Your task to perform on an android device: choose inbox layout in the gmail app Image 0: 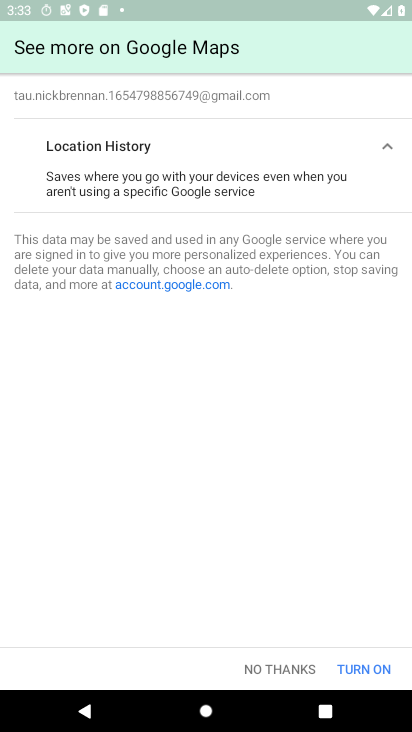
Step 0: press home button
Your task to perform on an android device: choose inbox layout in the gmail app Image 1: 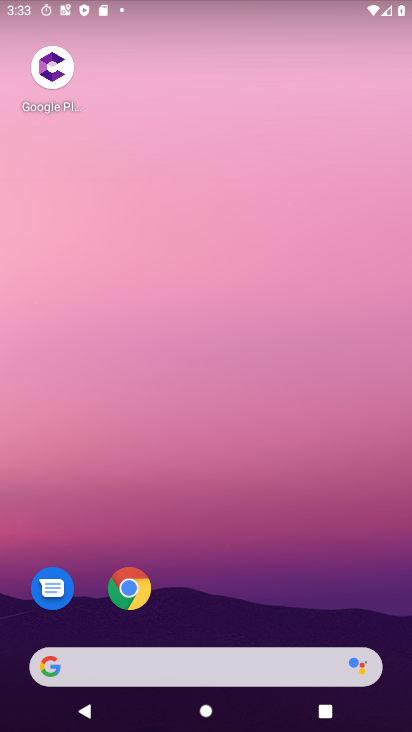
Step 1: drag from (232, 626) to (214, 27)
Your task to perform on an android device: choose inbox layout in the gmail app Image 2: 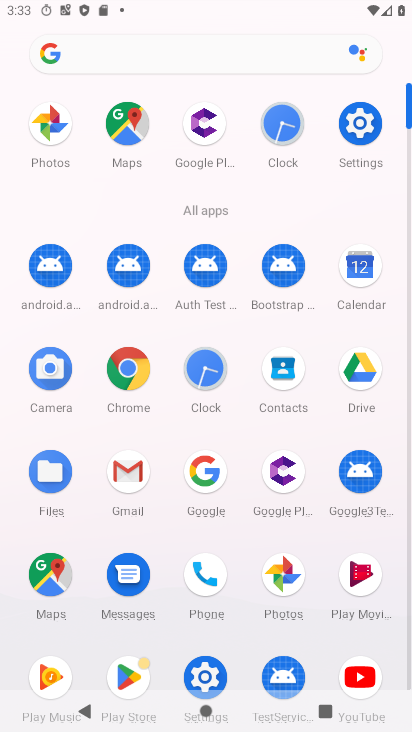
Step 2: click (128, 480)
Your task to perform on an android device: choose inbox layout in the gmail app Image 3: 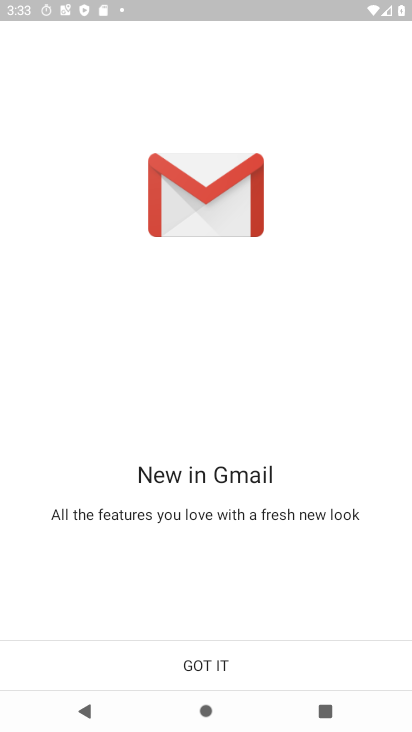
Step 3: click (214, 656)
Your task to perform on an android device: choose inbox layout in the gmail app Image 4: 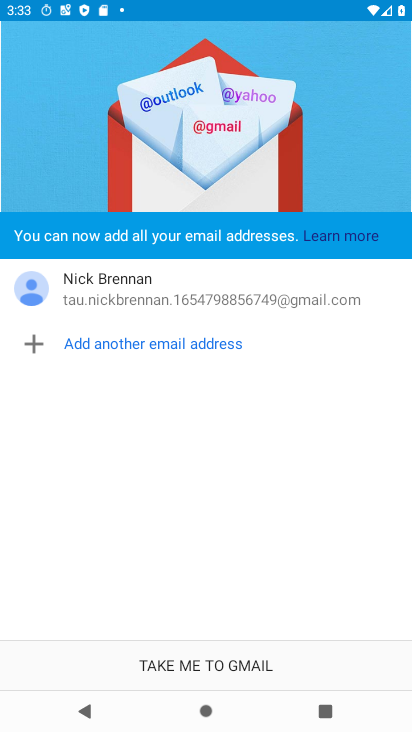
Step 4: click (243, 669)
Your task to perform on an android device: choose inbox layout in the gmail app Image 5: 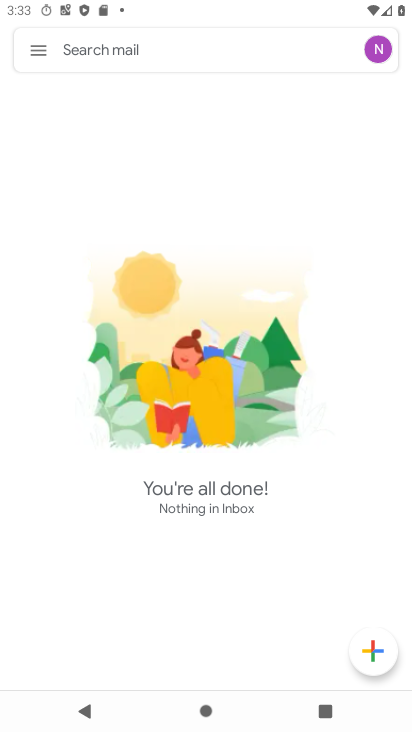
Step 5: click (42, 57)
Your task to perform on an android device: choose inbox layout in the gmail app Image 6: 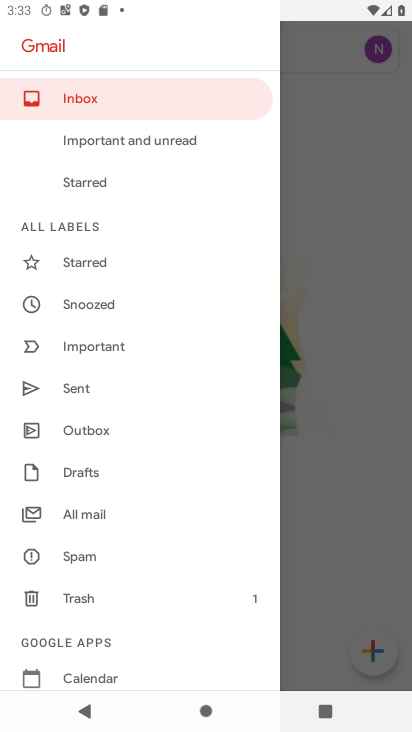
Step 6: drag from (98, 587) to (190, 62)
Your task to perform on an android device: choose inbox layout in the gmail app Image 7: 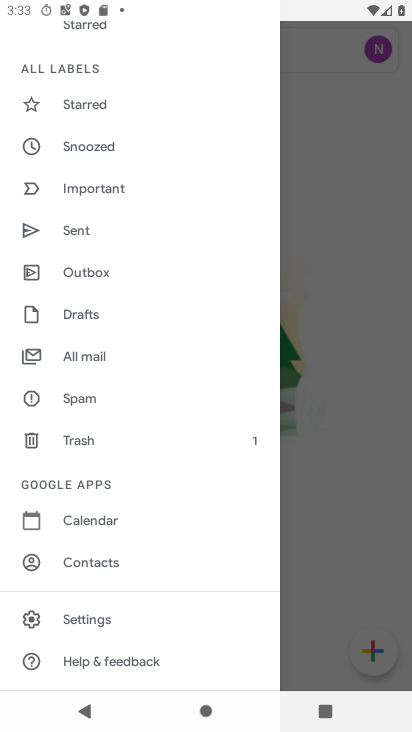
Step 7: click (110, 618)
Your task to perform on an android device: choose inbox layout in the gmail app Image 8: 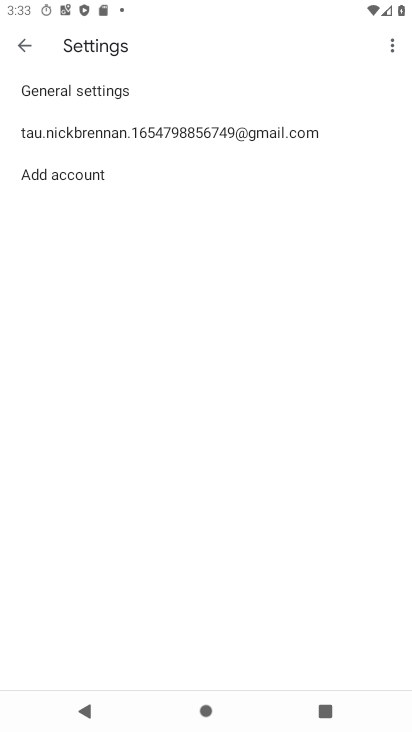
Step 8: click (144, 127)
Your task to perform on an android device: choose inbox layout in the gmail app Image 9: 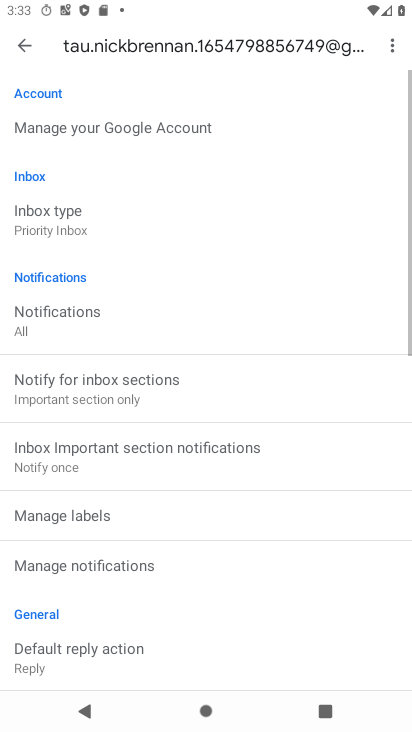
Step 9: click (73, 230)
Your task to perform on an android device: choose inbox layout in the gmail app Image 10: 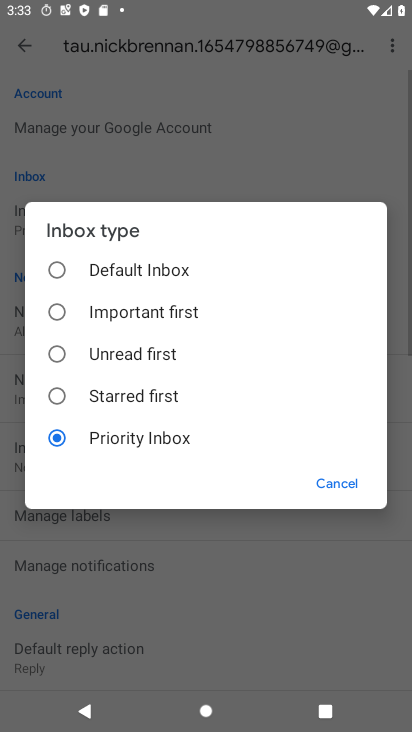
Step 10: click (131, 270)
Your task to perform on an android device: choose inbox layout in the gmail app Image 11: 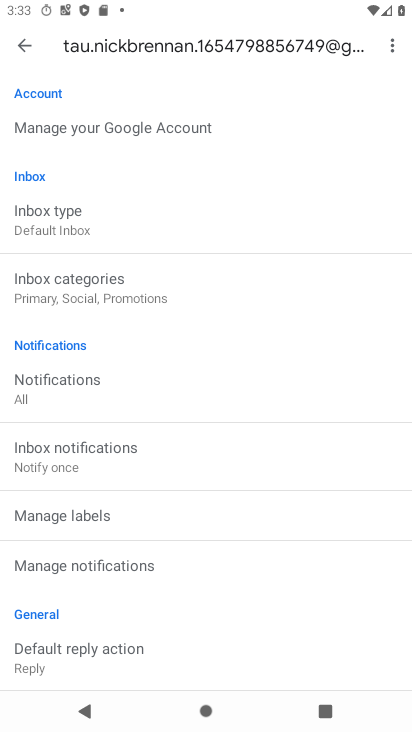
Step 11: task complete